Your task to perform on an android device: change the clock display to show seconds Image 0: 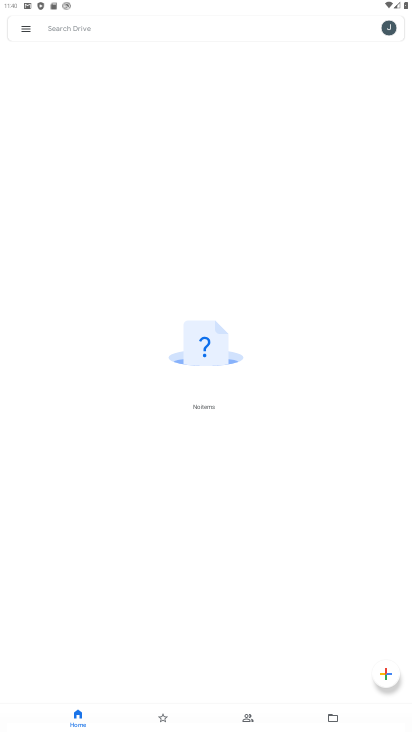
Step 0: press home button
Your task to perform on an android device: change the clock display to show seconds Image 1: 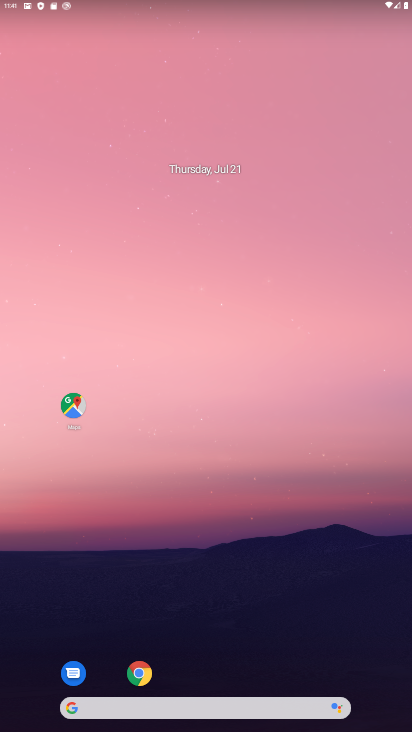
Step 1: drag from (263, 576) to (314, 289)
Your task to perform on an android device: change the clock display to show seconds Image 2: 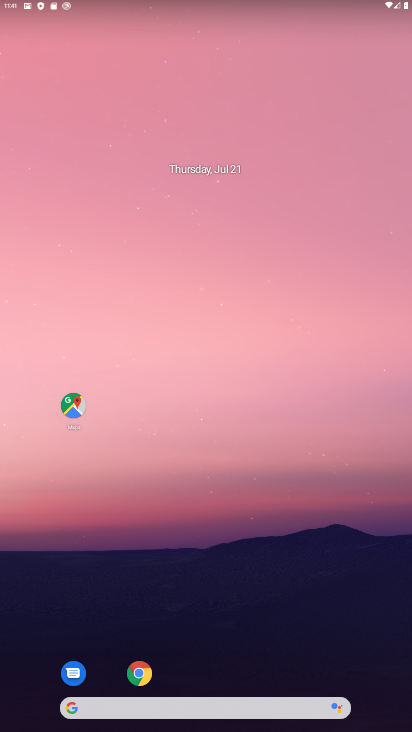
Step 2: drag from (305, 632) to (361, 156)
Your task to perform on an android device: change the clock display to show seconds Image 3: 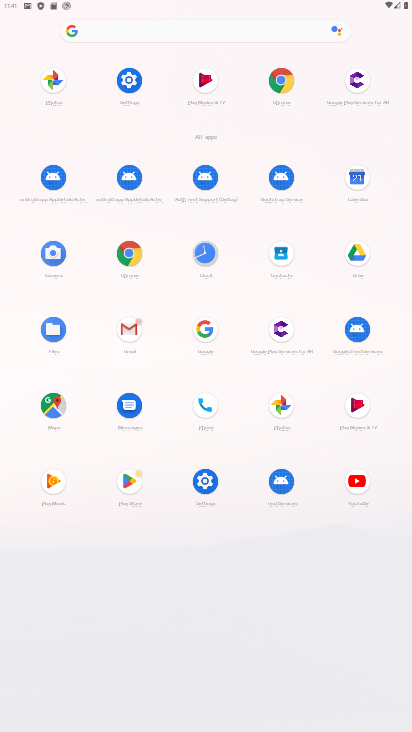
Step 3: click (211, 260)
Your task to perform on an android device: change the clock display to show seconds Image 4: 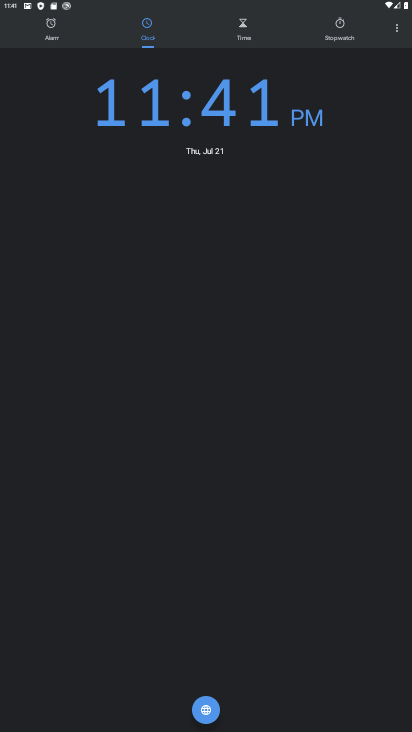
Step 4: click (395, 28)
Your task to perform on an android device: change the clock display to show seconds Image 5: 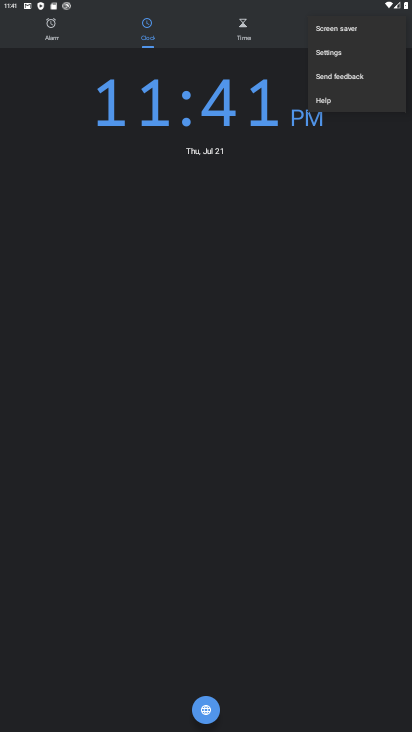
Step 5: click (347, 57)
Your task to perform on an android device: change the clock display to show seconds Image 6: 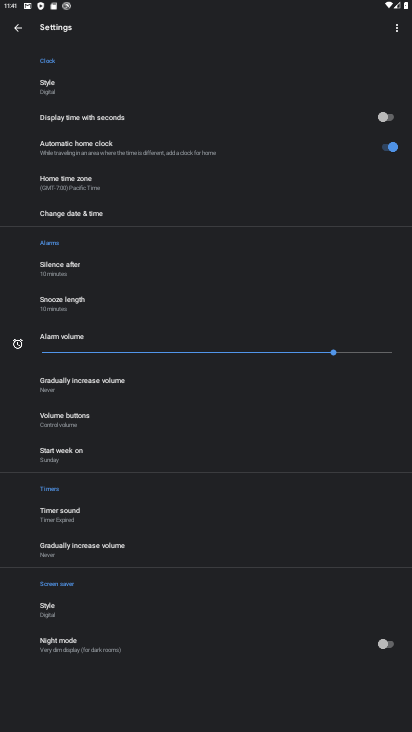
Step 6: click (388, 118)
Your task to perform on an android device: change the clock display to show seconds Image 7: 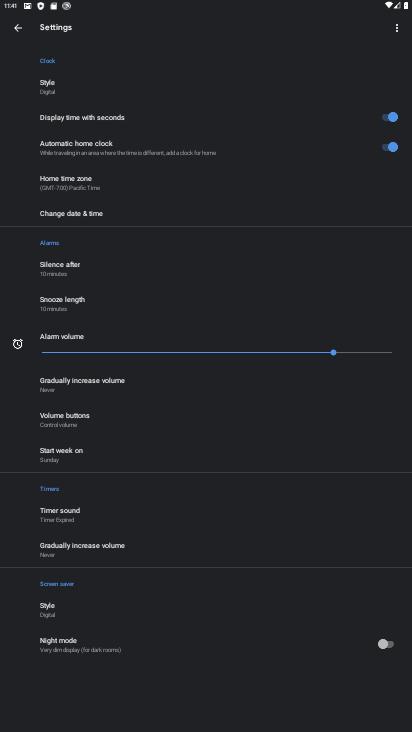
Step 7: task complete